Your task to perform on an android device: turn on location history Image 0: 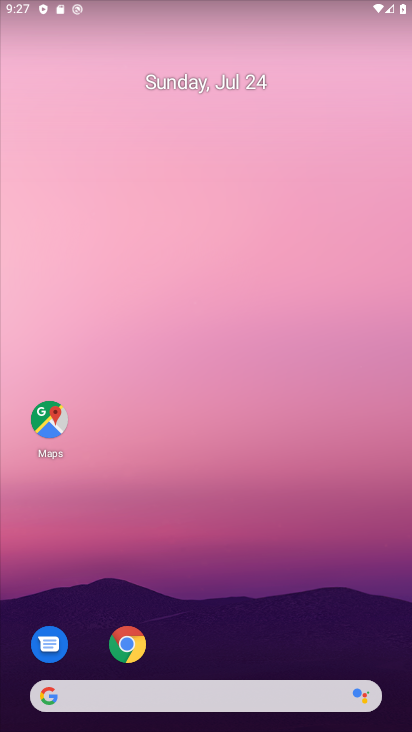
Step 0: drag from (258, 485) to (118, 0)
Your task to perform on an android device: turn on location history Image 1: 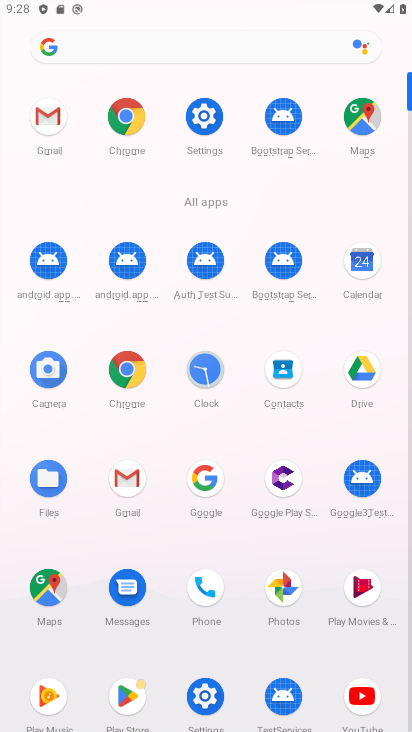
Step 1: click (227, 118)
Your task to perform on an android device: turn on location history Image 2: 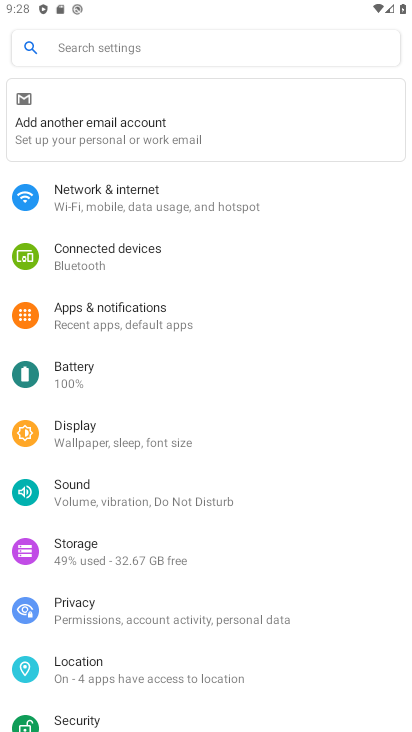
Step 2: drag from (247, 621) to (148, 295)
Your task to perform on an android device: turn on location history Image 3: 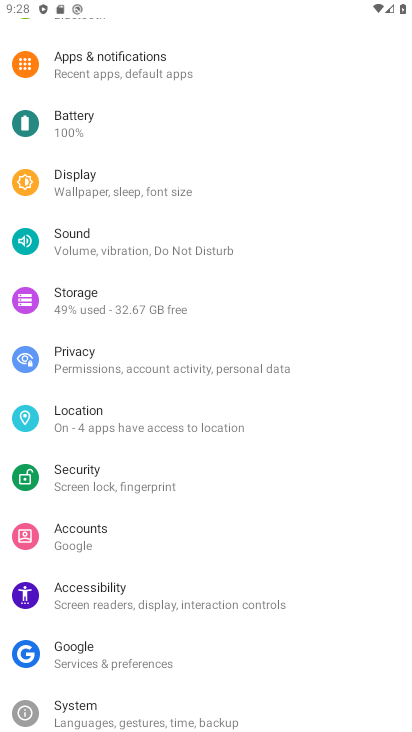
Step 3: click (105, 413)
Your task to perform on an android device: turn on location history Image 4: 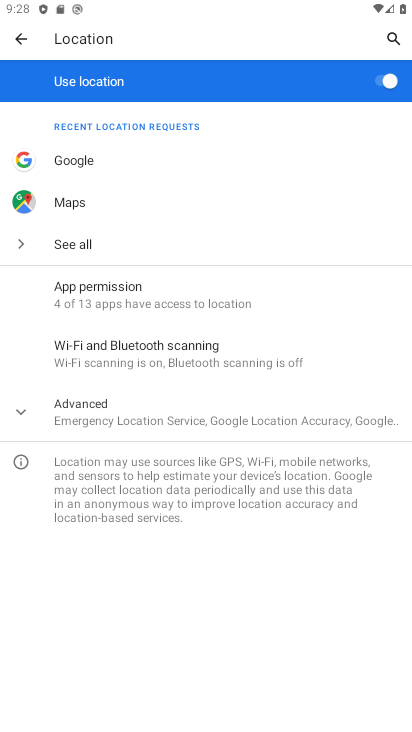
Step 4: click (121, 407)
Your task to perform on an android device: turn on location history Image 5: 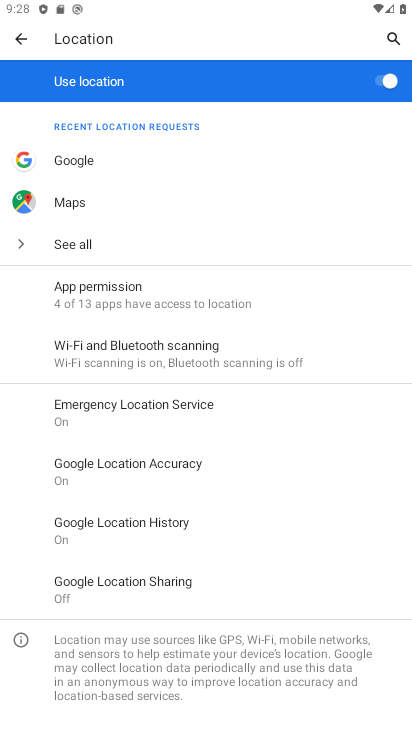
Step 5: click (159, 524)
Your task to perform on an android device: turn on location history Image 6: 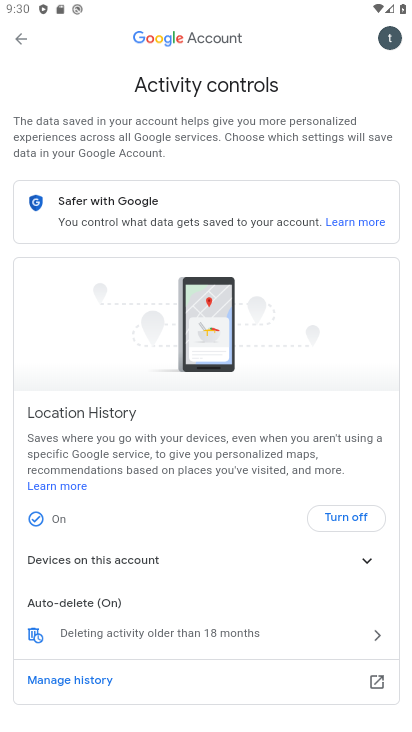
Step 6: task complete